Your task to perform on an android device: Go to Yahoo.com Image 0: 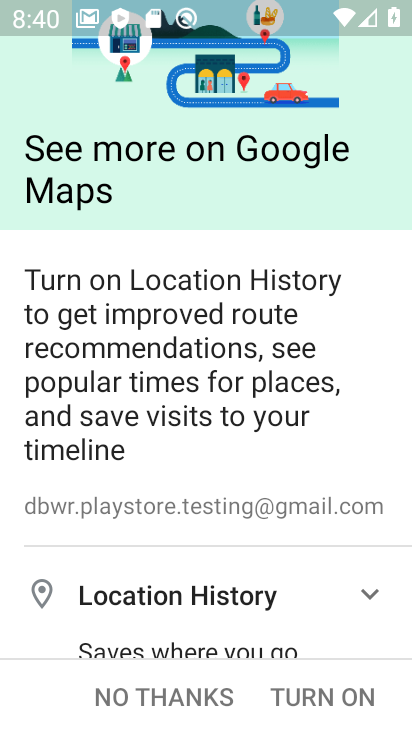
Step 0: press home button
Your task to perform on an android device: Go to Yahoo.com Image 1: 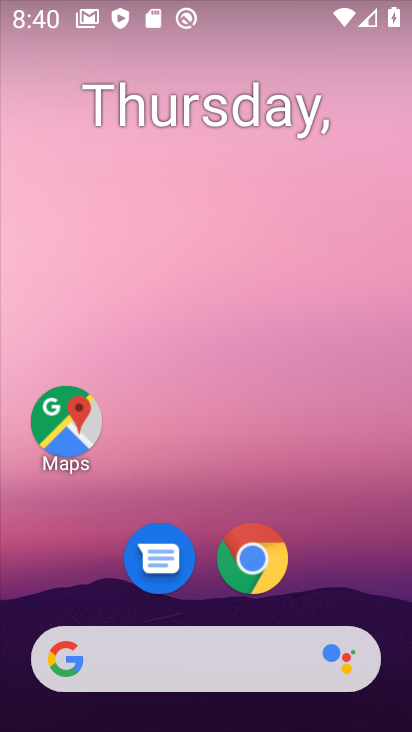
Step 1: click (250, 556)
Your task to perform on an android device: Go to Yahoo.com Image 2: 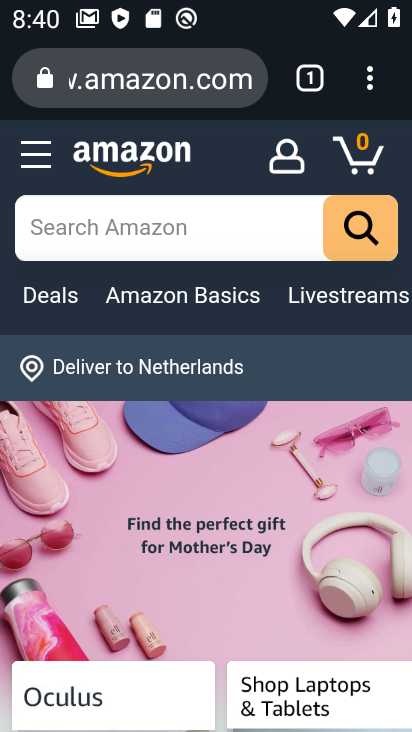
Step 2: click (138, 76)
Your task to perform on an android device: Go to Yahoo.com Image 3: 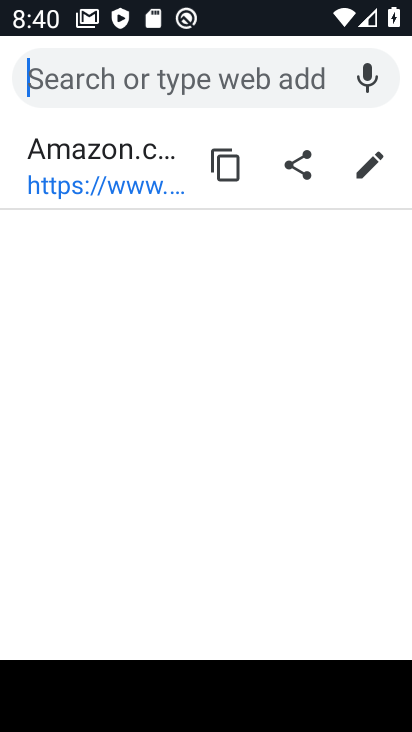
Step 3: type "yahoo.com"
Your task to perform on an android device: Go to Yahoo.com Image 4: 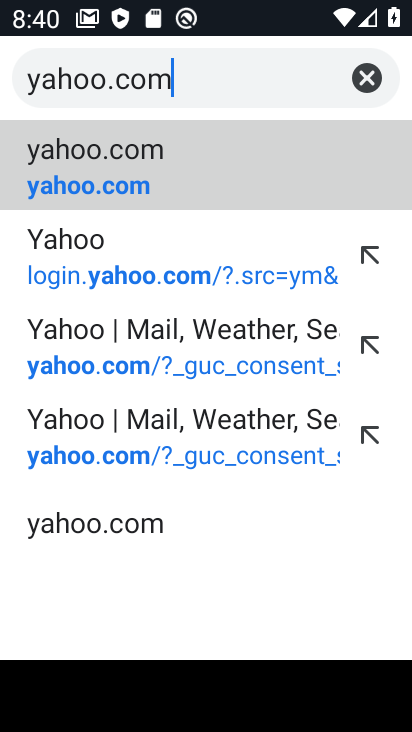
Step 4: click (57, 167)
Your task to perform on an android device: Go to Yahoo.com Image 5: 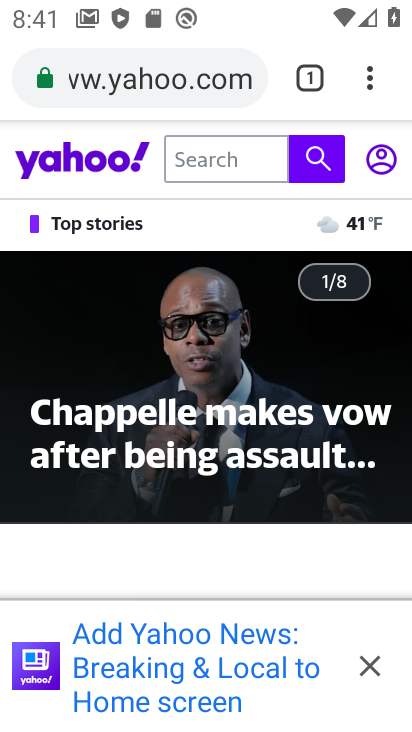
Step 5: task complete